Your task to perform on an android device: turn on improve location accuracy Image 0: 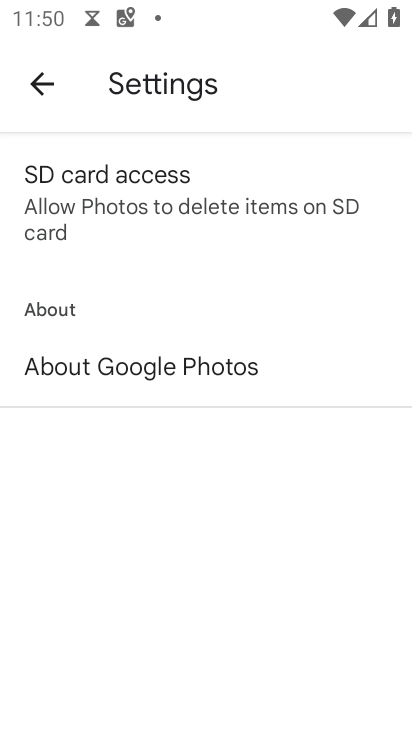
Step 0: press home button
Your task to perform on an android device: turn on improve location accuracy Image 1: 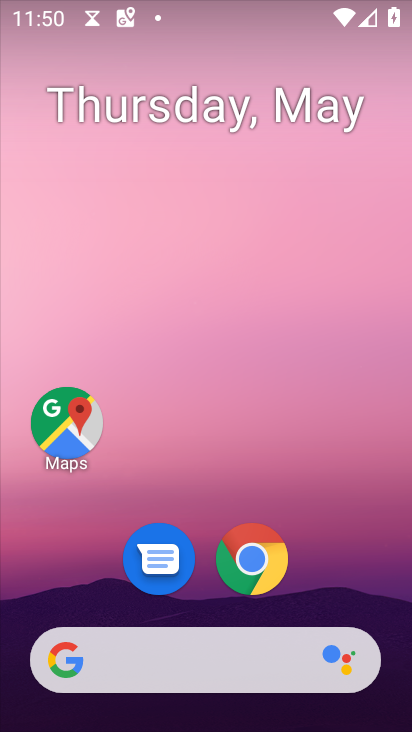
Step 1: drag from (211, 725) to (212, 257)
Your task to perform on an android device: turn on improve location accuracy Image 2: 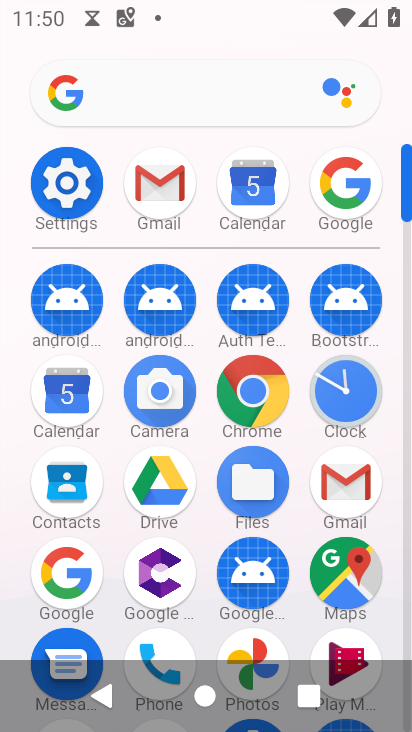
Step 2: click (59, 182)
Your task to perform on an android device: turn on improve location accuracy Image 3: 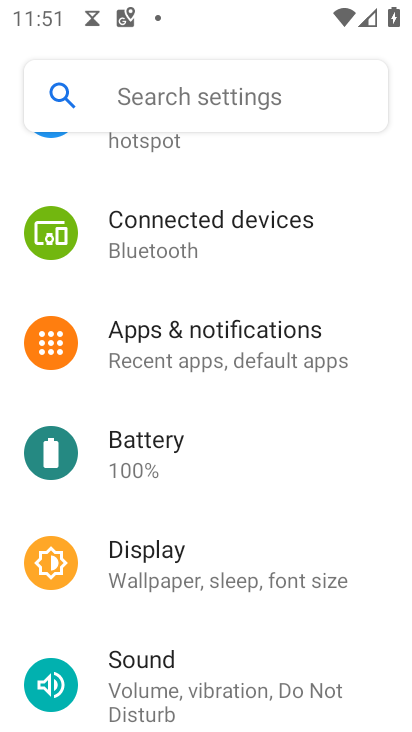
Step 3: drag from (195, 662) to (197, 226)
Your task to perform on an android device: turn on improve location accuracy Image 4: 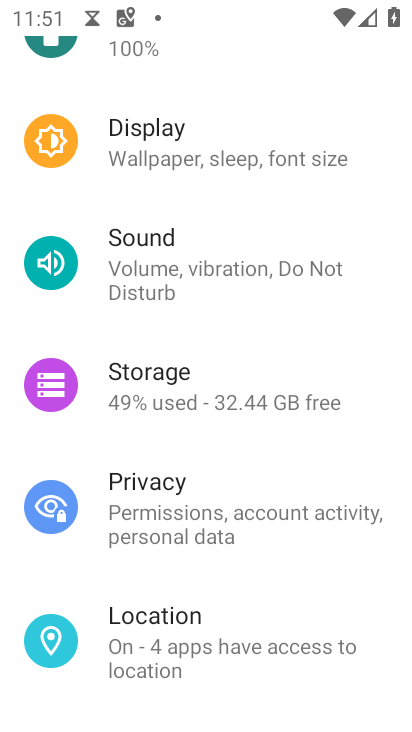
Step 4: click (174, 628)
Your task to perform on an android device: turn on improve location accuracy Image 5: 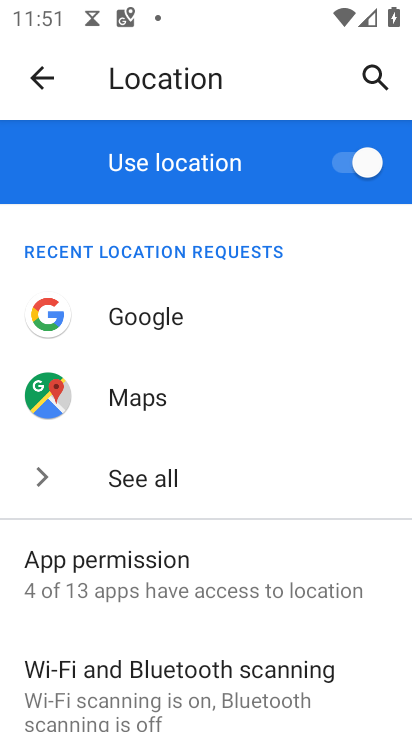
Step 5: drag from (201, 723) to (188, 298)
Your task to perform on an android device: turn on improve location accuracy Image 6: 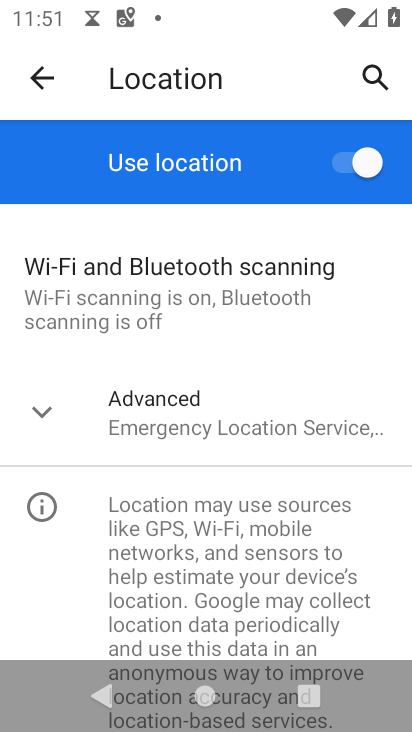
Step 6: click (184, 552)
Your task to perform on an android device: turn on improve location accuracy Image 7: 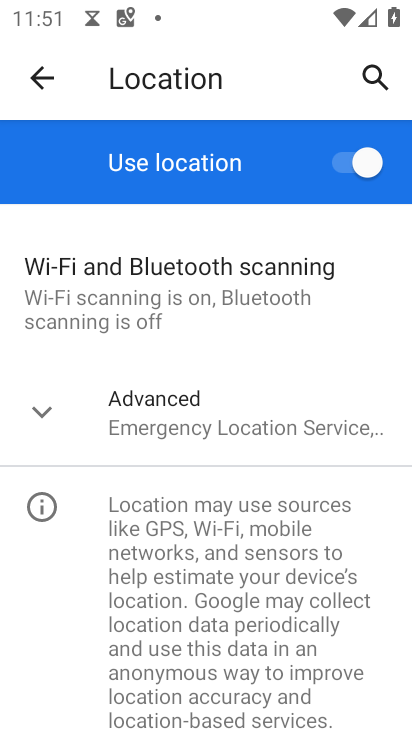
Step 7: click (184, 409)
Your task to perform on an android device: turn on improve location accuracy Image 8: 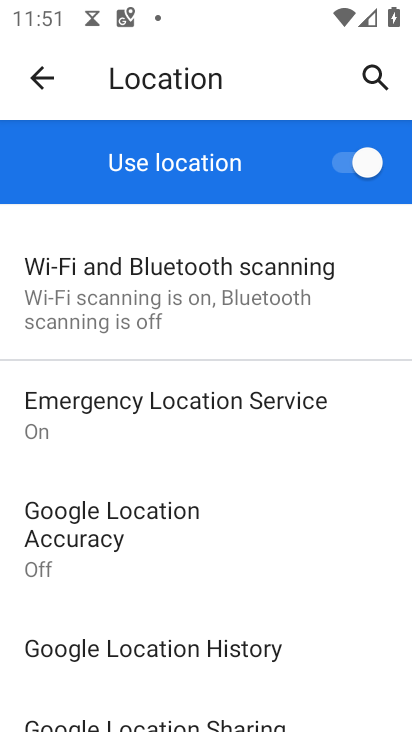
Step 8: click (134, 513)
Your task to perform on an android device: turn on improve location accuracy Image 9: 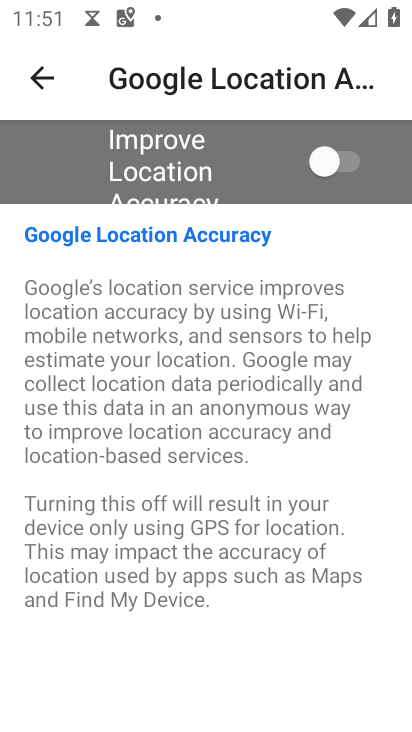
Step 9: click (346, 157)
Your task to perform on an android device: turn on improve location accuracy Image 10: 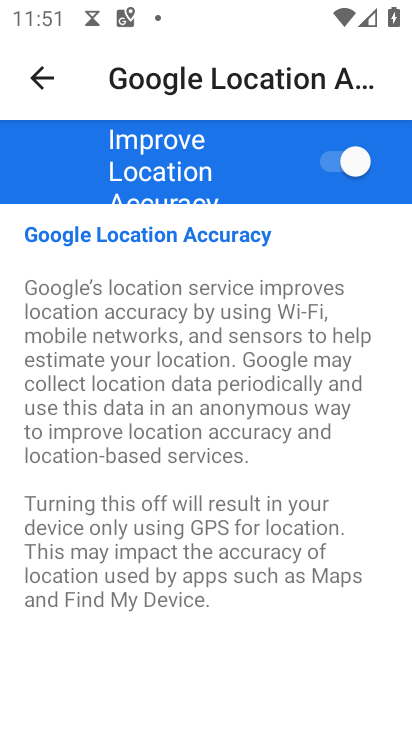
Step 10: task complete